Your task to perform on an android device: Open Chrome and go to settings Image 0: 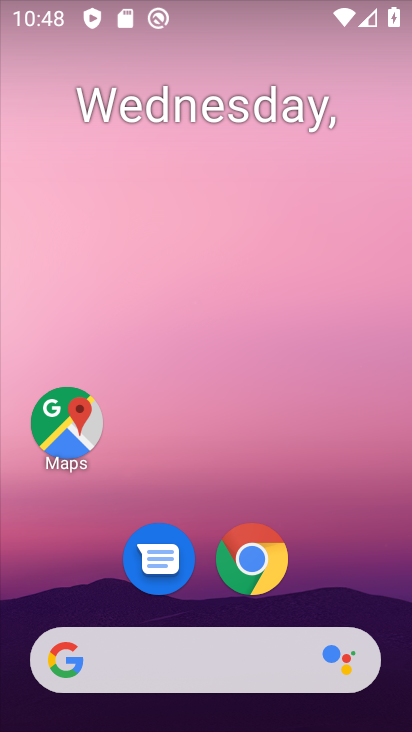
Step 0: drag from (393, 534) to (370, 51)
Your task to perform on an android device: Open Chrome and go to settings Image 1: 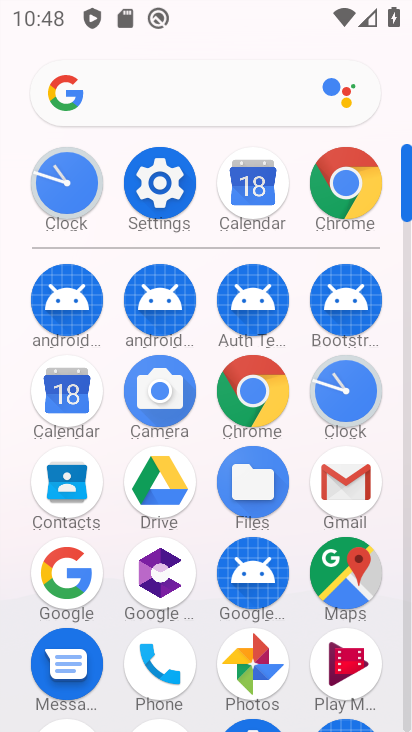
Step 1: click (376, 200)
Your task to perform on an android device: Open Chrome and go to settings Image 2: 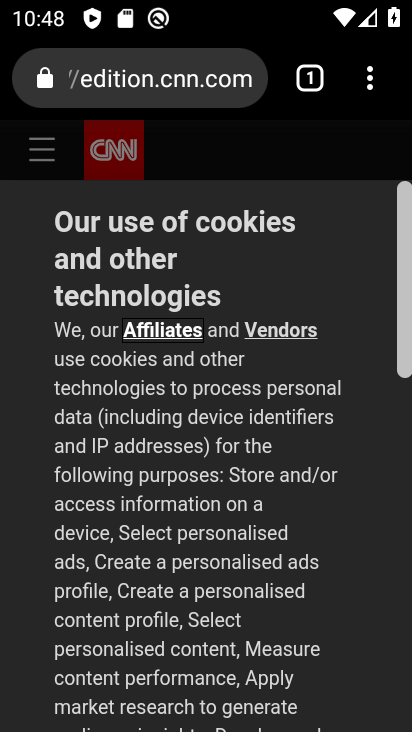
Step 2: drag from (333, 176) to (406, 576)
Your task to perform on an android device: Open Chrome and go to settings Image 3: 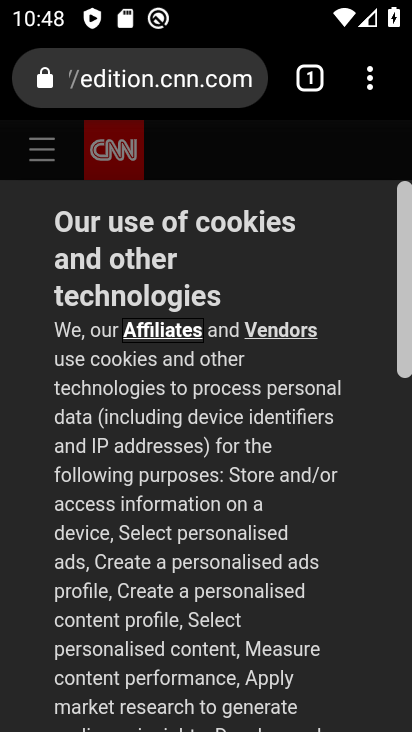
Step 3: click (376, 86)
Your task to perform on an android device: Open Chrome and go to settings Image 4: 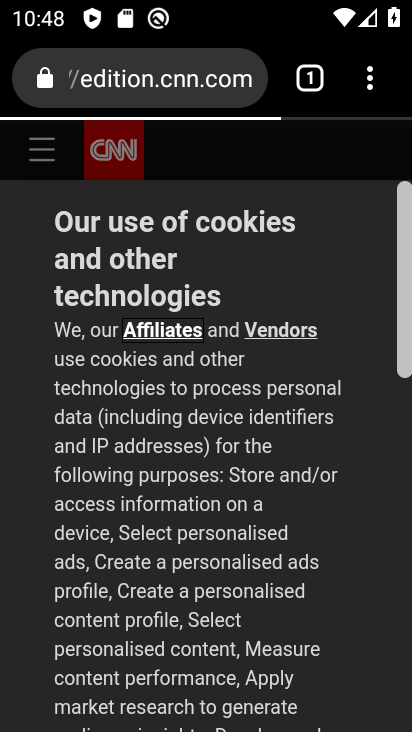
Step 4: task complete